Your task to perform on an android device: turn on bluetooth scan Image 0: 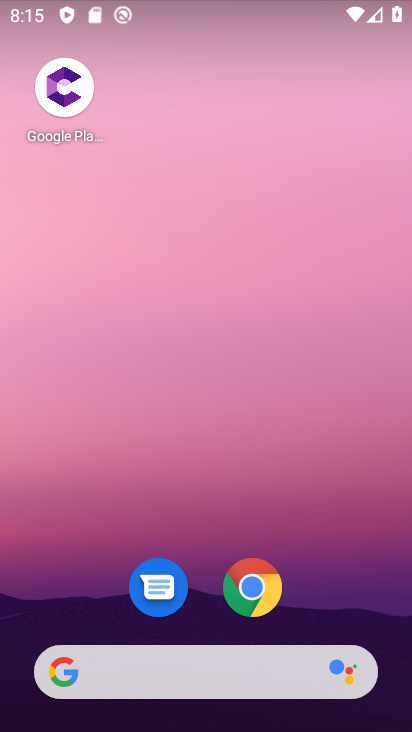
Step 0: drag from (383, 680) to (288, 31)
Your task to perform on an android device: turn on bluetooth scan Image 1: 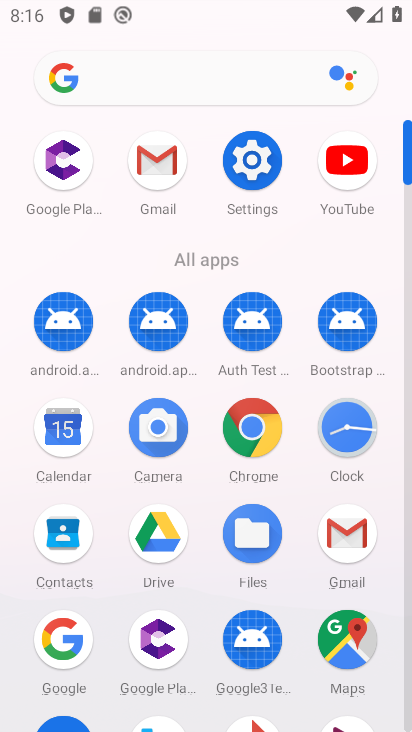
Step 1: click (253, 186)
Your task to perform on an android device: turn on bluetooth scan Image 2: 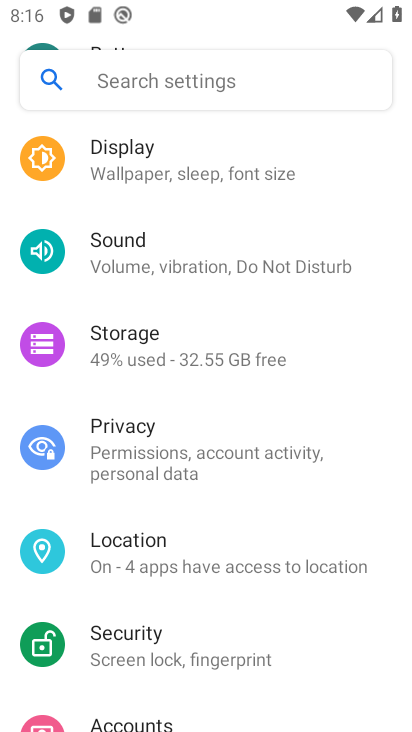
Step 2: click (188, 548)
Your task to perform on an android device: turn on bluetooth scan Image 3: 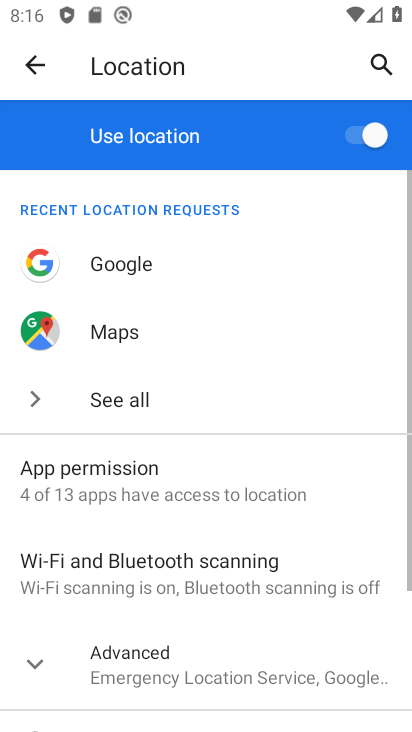
Step 3: click (146, 577)
Your task to perform on an android device: turn on bluetooth scan Image 4: 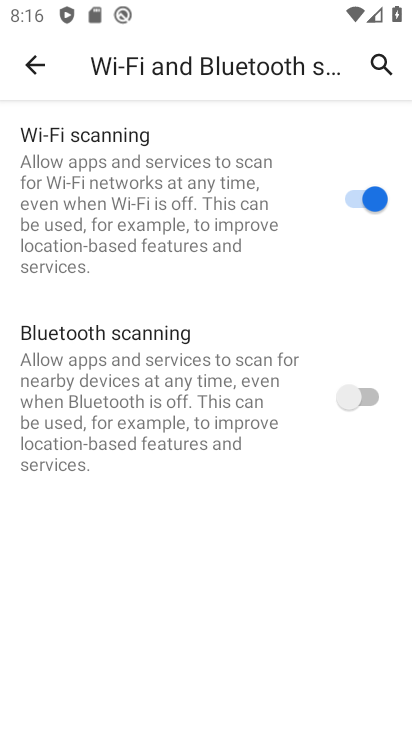
Step 4: click (303, 401)
Your task to perform on an android device: turn on bluetooth scan Image 5: 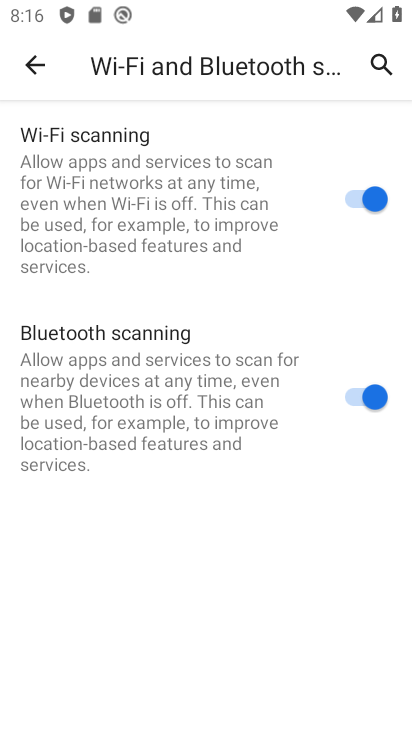
Step 5: task complete